Your task to perform on an android device: turn on airplane mode Image 0: 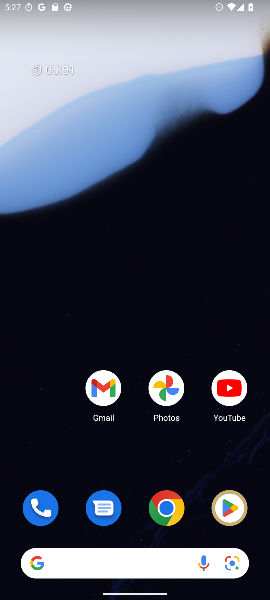
Step 0: drag from (147, 501) to (228, 146)
Your task to perform on an android device: turn on airplane mode Image 1: 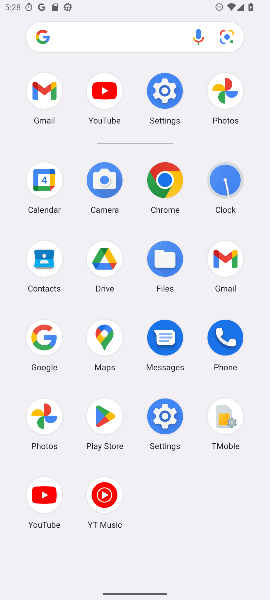
Step 1: click (157, 93)
Your task to perform on an android device: turn on airplane mode Image 2: 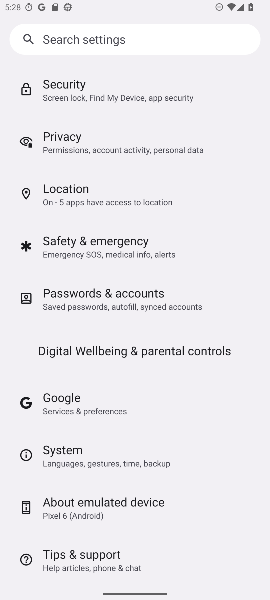
Step 2: drag from (120, 114) to (264, 269)
Your task to perform on an android device: turn on airplane mode Image 3: 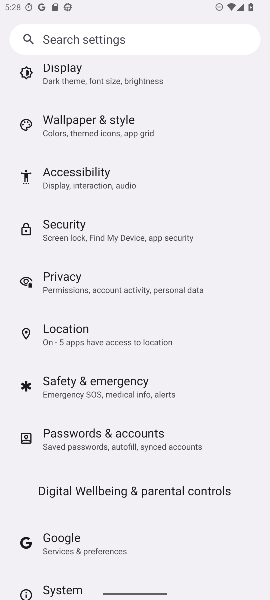
Step 3: drag from (133, 153) to (232, 543)
Your task to perform on an android device: turn on airplane mode Image 4: 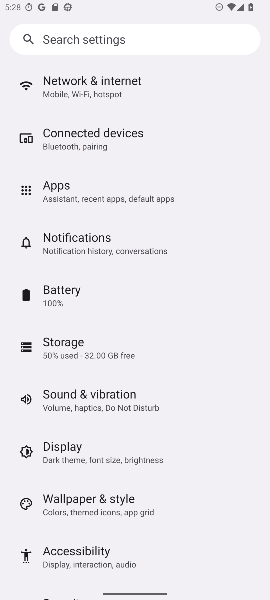
Step 4: drag from (173, 268) to (269, 480)
Your task to perform on an android device: turn on airplane mode Image 5: 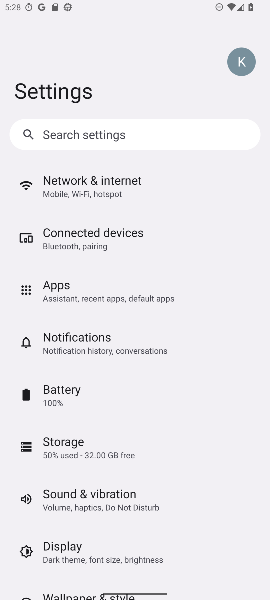
Step 5: click (79, 188)
Your task to perform on an android device: turn on airplane mode Image 6: 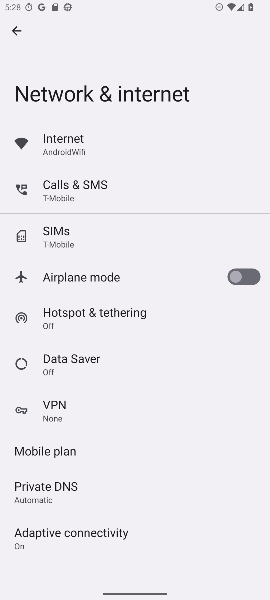
Step 6: click (128, 275)
Your task to perform on an android device: turn on airplane mode Image 7: 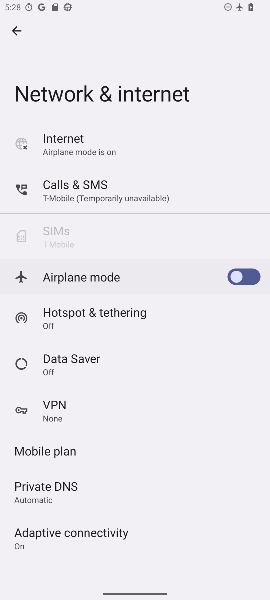
Step 7: task complete